Your task to perform on an android device: Search for sushi restaurants on Maps Image 0: 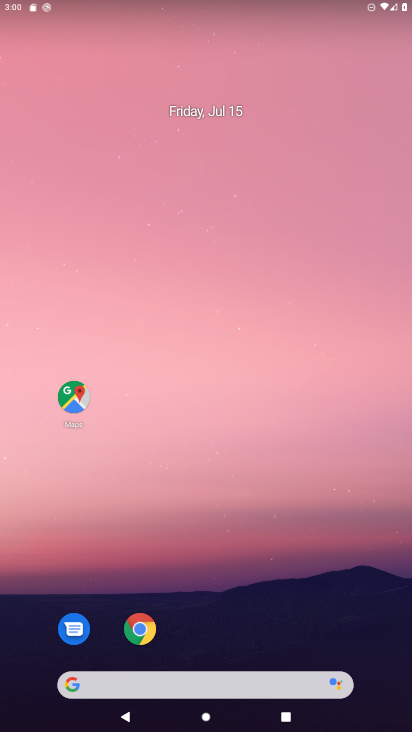
Step 0: drag from (298, 524) to (261, 0)
Your task to perform on an android device: Search for sushi restaurants on Maps Image 1: 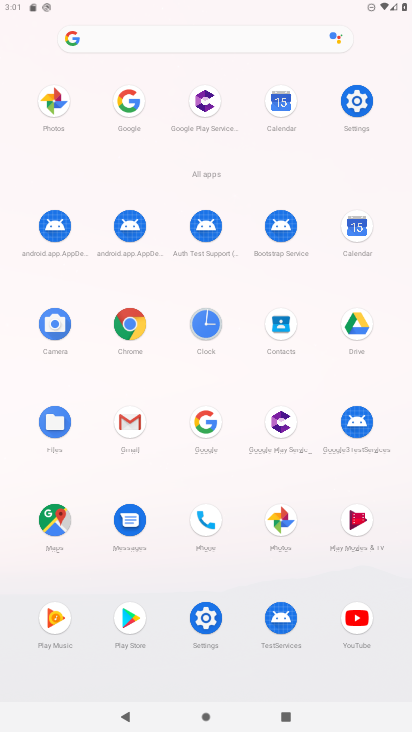
Step 1: click (51, 538)
Your task to perform on an android device: Search for sushi restaurants on Maps Image 2: 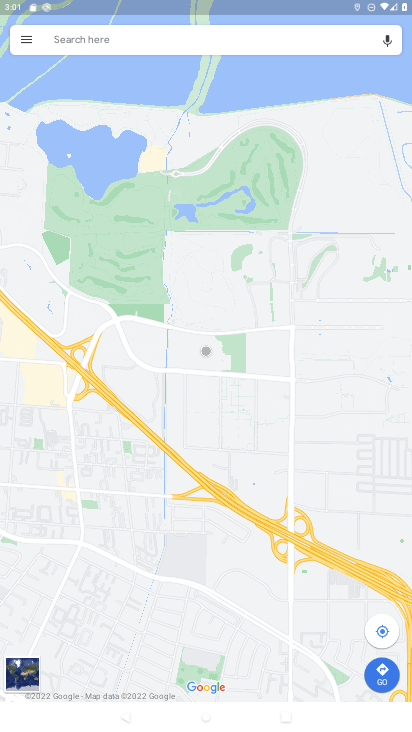
Step 2: click (142, 36)
Your task to perform on an android device: Search for sushi restaurants on Maps Image 3: 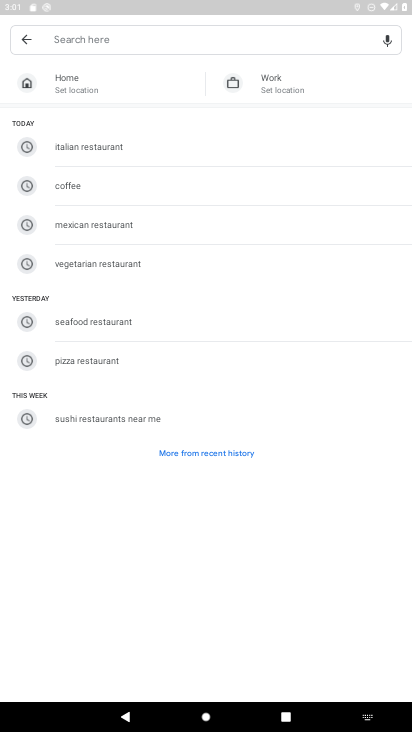
Step 3: click (87, 412)
Your task to perform on an android device: Search for sushi restaurants on Maps Image 4: 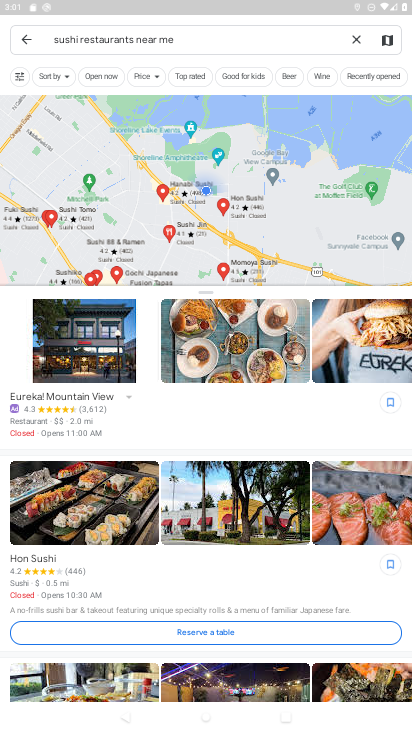
Step 4: task complete